Your task to perform on an android device: create a new album in the google photos Image 0: 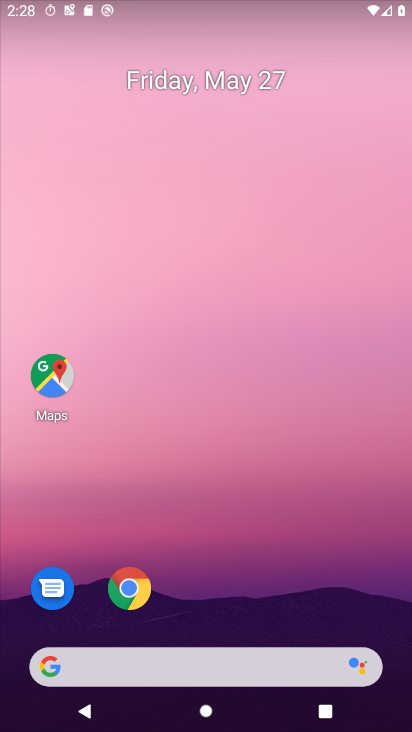
Step 0: drag from (225, 578) to (216, 0)
Your task to perform on an android device: create a new album in the google photos Image 1: 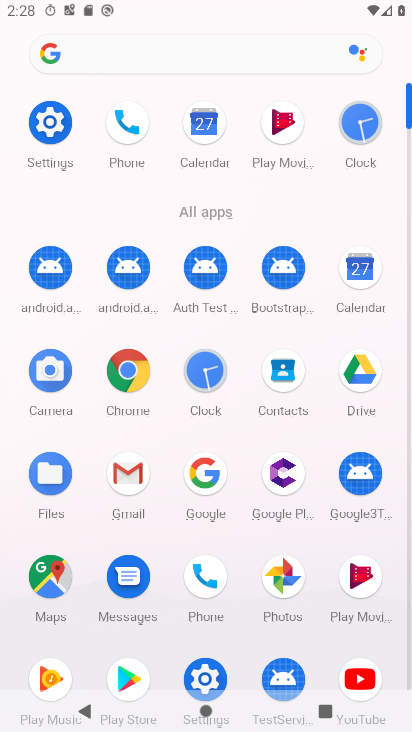
Step 1: click (284, 580)
Your task to perform on an android device: create a new album in the google photos Image 2: 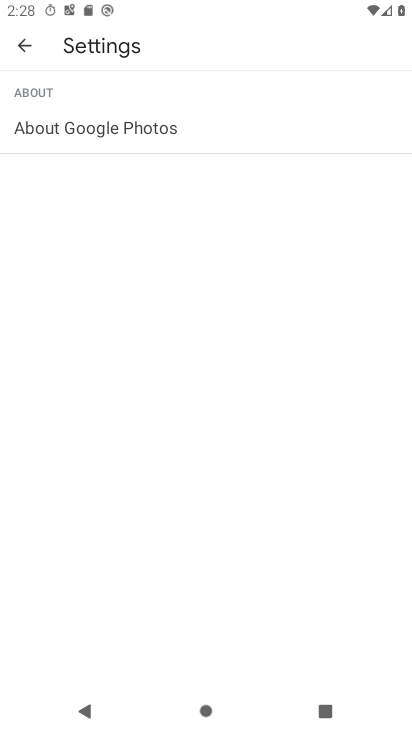
Step 2: click (15, 45)
Your task to perform on an android device: create a new album in the google photos Image 3: 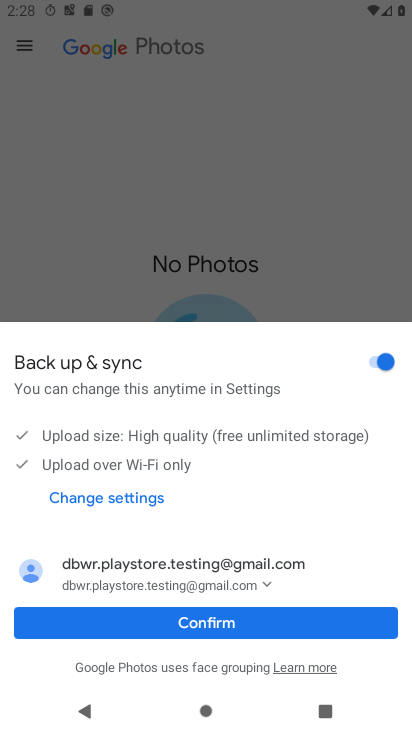
Step 3: click (125, 627)
Your task to perform on an android device: create a new album in the google photos Image 4: 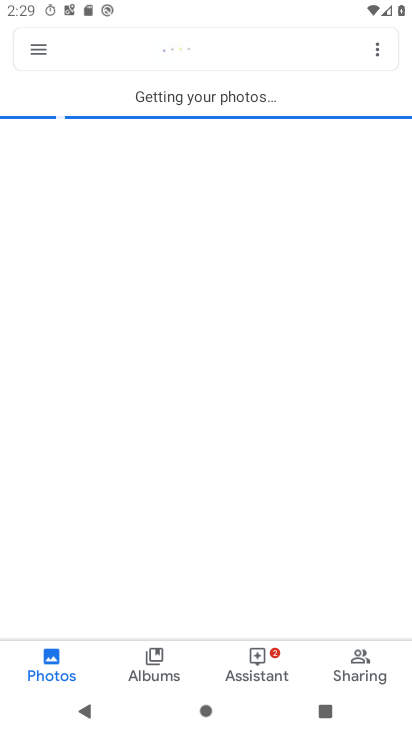
Step 4: click (132, 667)
Your task to perform on an android device: create a new album in the google photos Image 5: 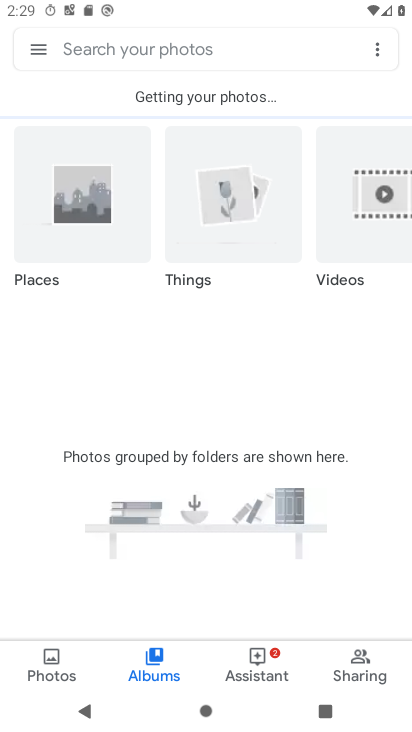
Step 5: click (377, 47)
Your task to perform on an android device: create a new album in the google photos Image 6: 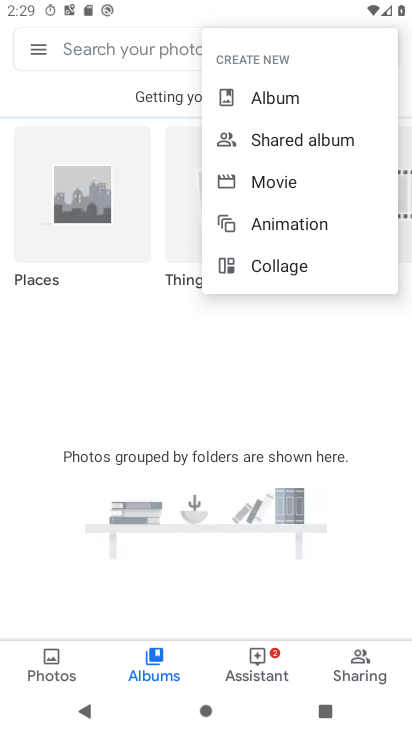
Step 6: click (289, 88)
Your task to perform on an android device: create a new album in the google photos Image 7: 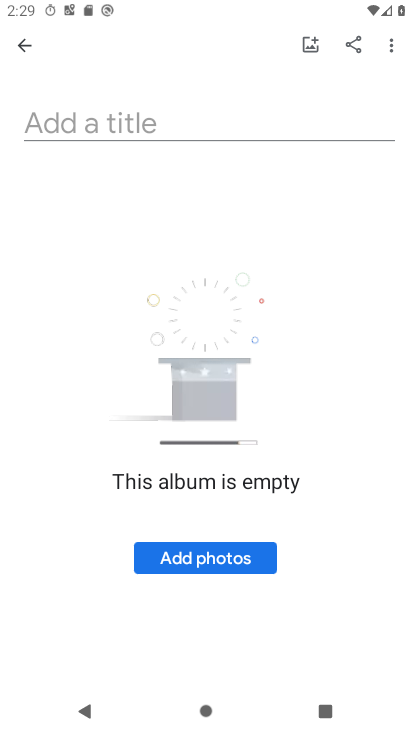
Step 7: click (79, 133)
Your task to perform on an android device: create a new album in the google photos Image 8: 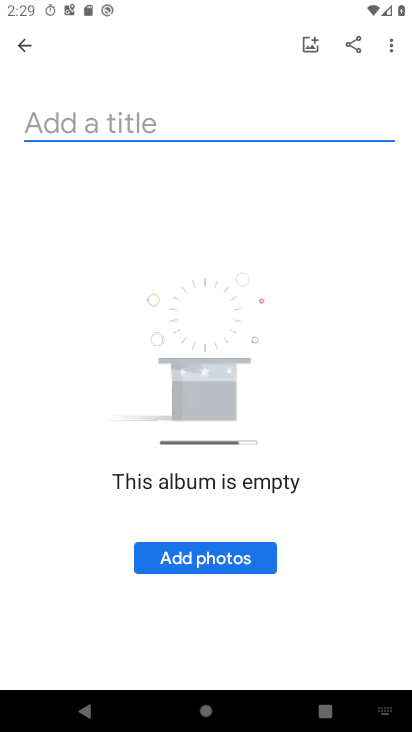
Step 8: type "qwaszxcvdfertygh"
Your task to perform on an android device: create a new album in the google photos Image 9: 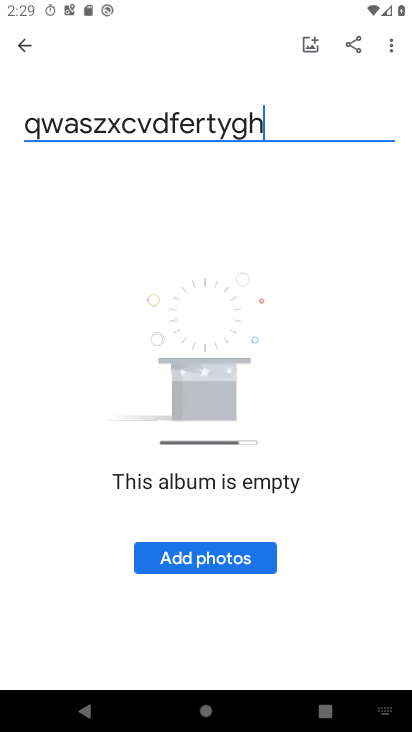
Step 9: click (180, 564)
Your task to perform on an android device: create a new album in the google photos Image 10: 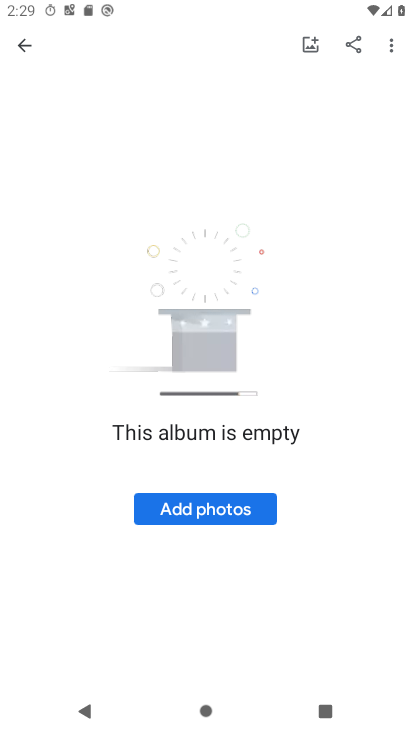
Step 10: click (199, 497)
Your task to perform on an android device: create a new album in the google photos Image 11: 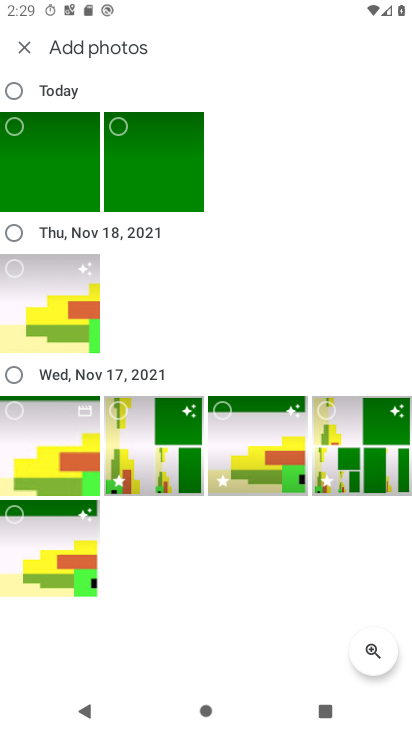
Step 11: click (42, 180)
Your task to perform on an android device: create a new album in the google photos Image 12: 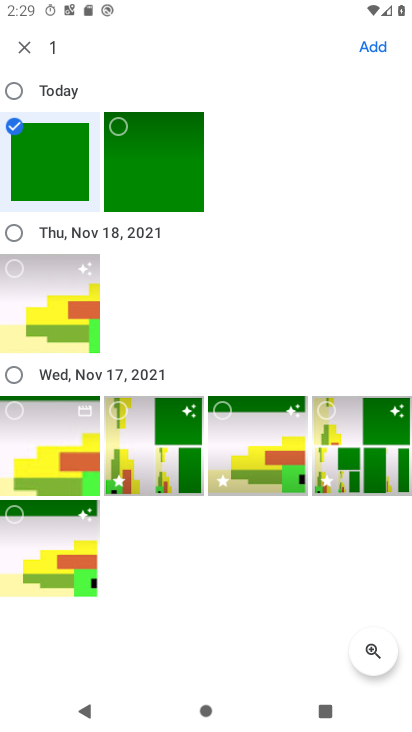
Step 12: click (376, 48)
Your task to perform on an android device: create a new album in the google photos Image 13: 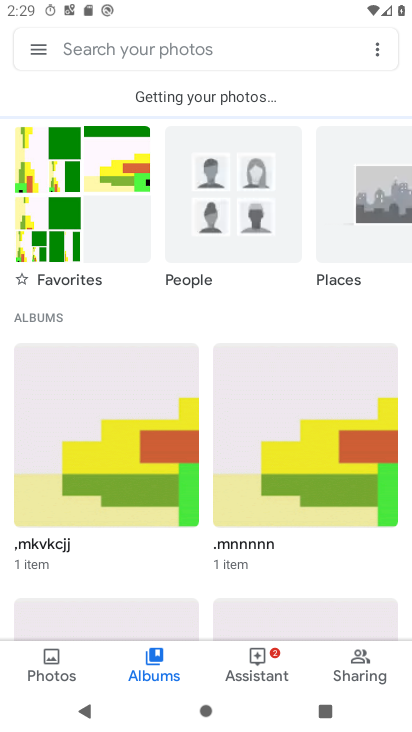
Step 13: task complete